Your task to perform on an android device: allow notifications from all sites in the chrome app Image 0: 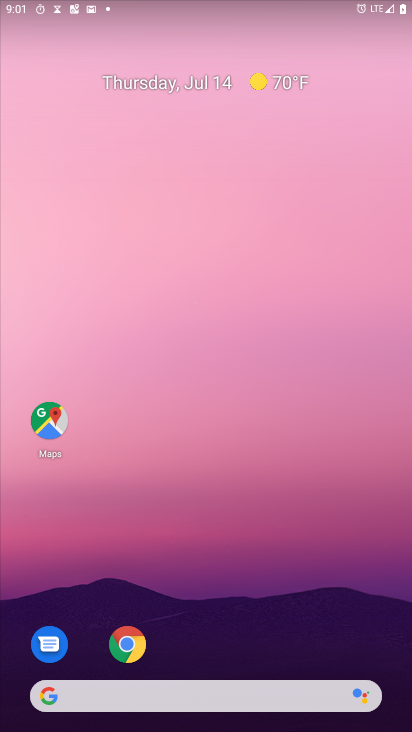
Step 0: press home button
Your task to perform on an android device: allow notifications from all sites in the chrome app Image 1: 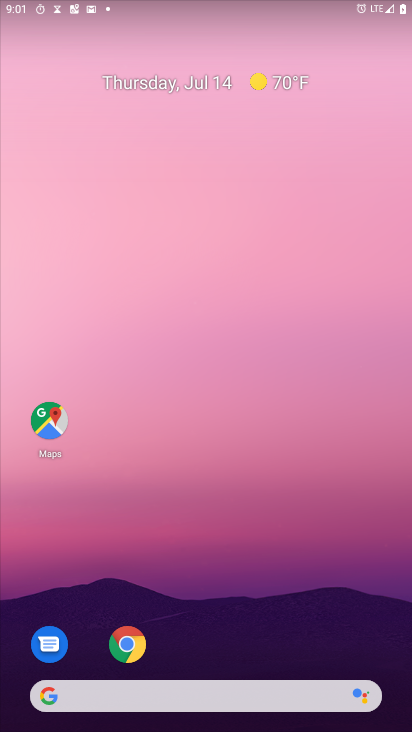
Step 1: click (129, 647)
Your task to perform on an android device: allow notifications from all sites in the chrome app Image 2: 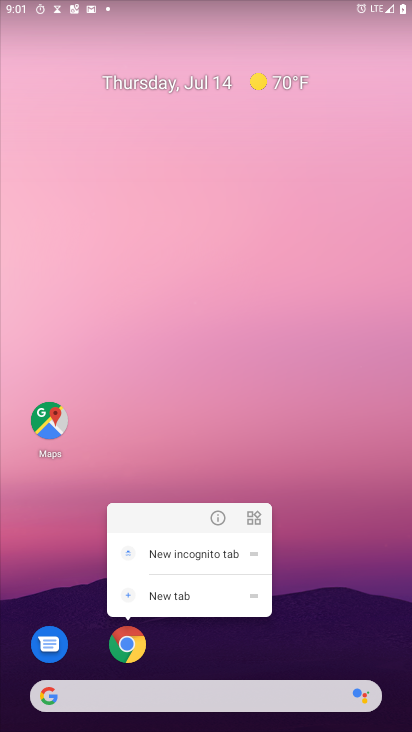
Step 2: click (128, 648)
Your task to perform on an android device: allow notifications from all sites in the chrome app Image 3: 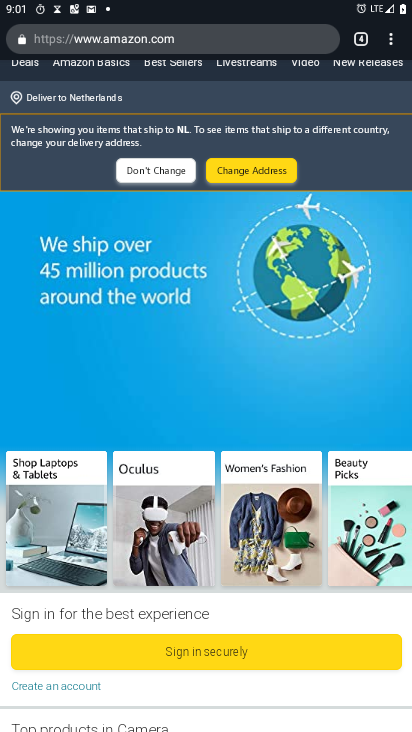
Step 3: drag from (394, 41) to (298, 520)
Your task to perform on an android device: allow notifications from all sites in the chrome app Image 4: 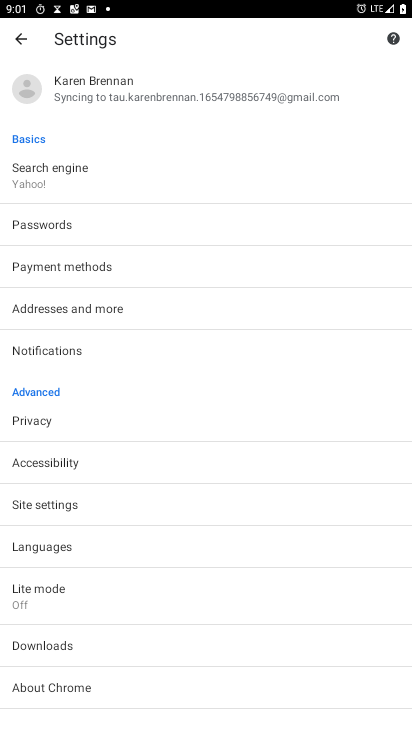
Step 4: click (36, 505)
Your task to perform on an android device: allow notifications from all sites in the chrome app Image 5: 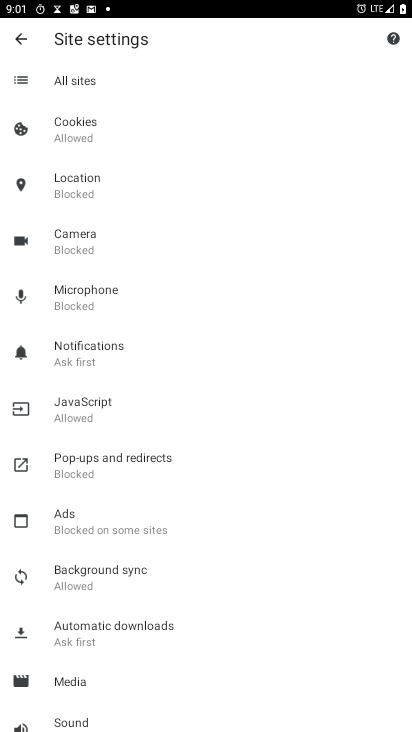
Step 5: click (82, 349)
Your task to perform on an android device: allow notifications from all sites in the chrome app Image 6: 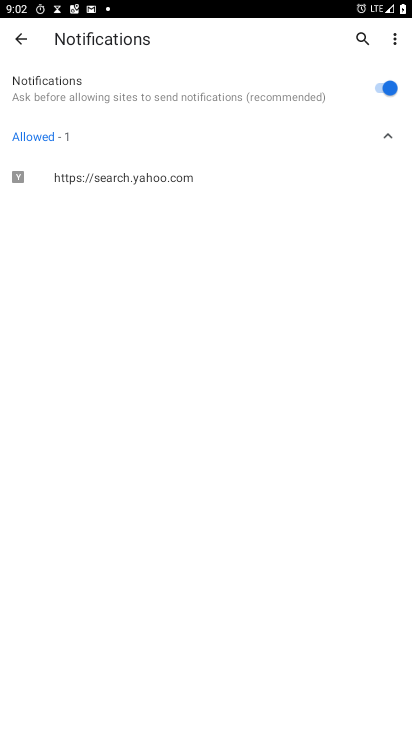
Step 6: task complete